Your task to perform on an android device: turn on location history Image 0: 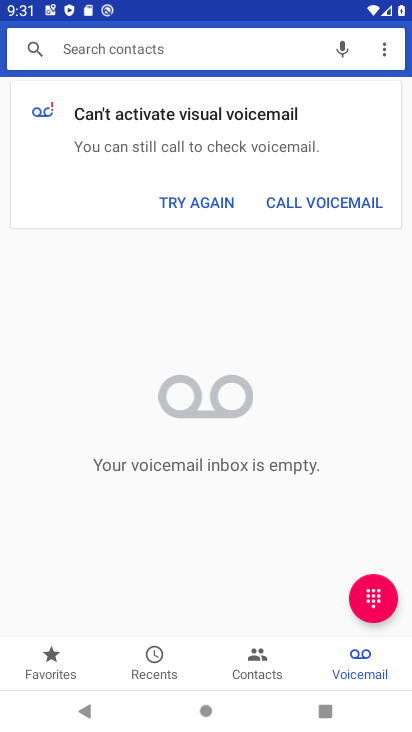
Step 0: press home button
Your task to perform on an android device: turn on location history Image 1: 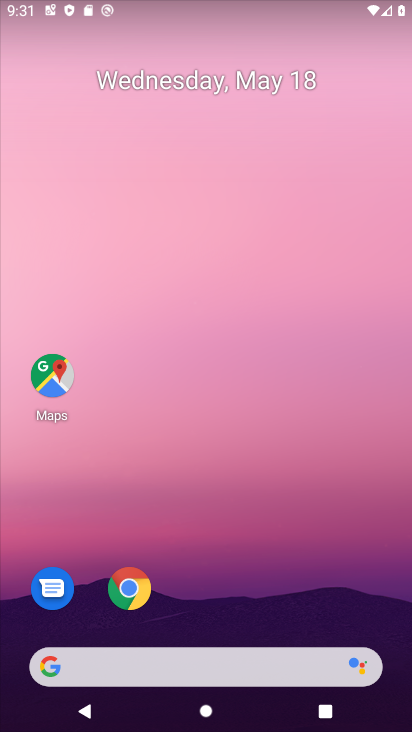
Step 1: drag from (287, 682) to (296, 160)
Your task to perform on an android device: turn on location history Image 2: 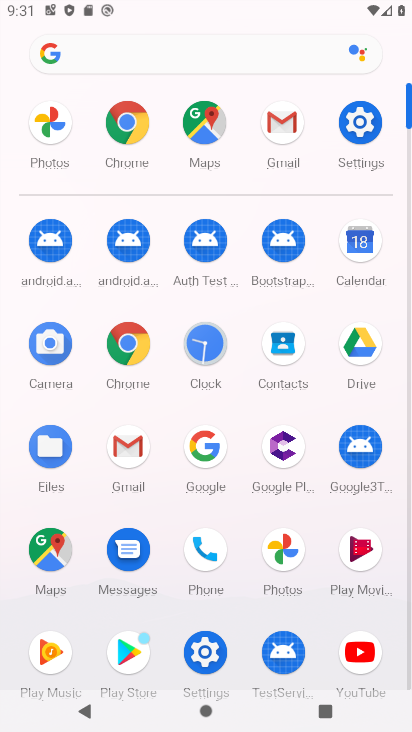
Step 2: click (371, 130)
Your task to perform on an android device: turn on location history Image 3: 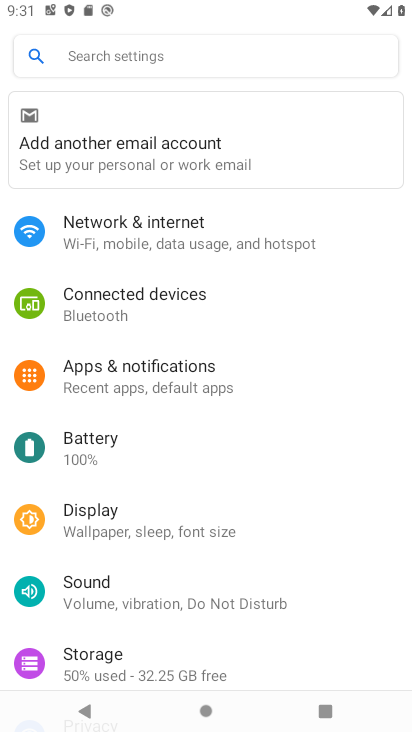
Step 3: click (192, 50)
Your task to perform on an android device: turn on location history Image 4: 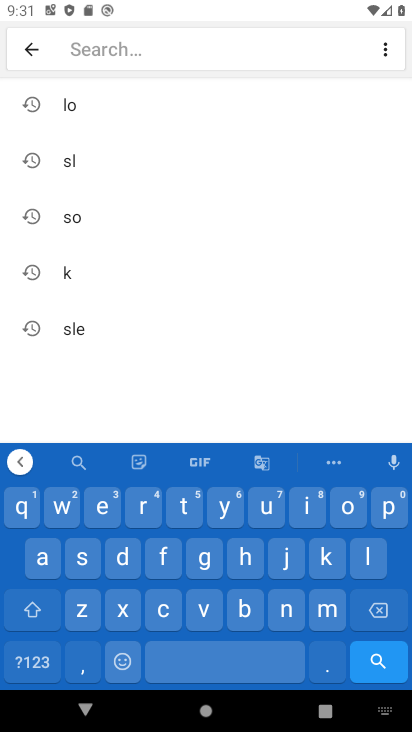
Step 4: click (88, 122)
Your task to perform on an android device: turn on location history Image 5: 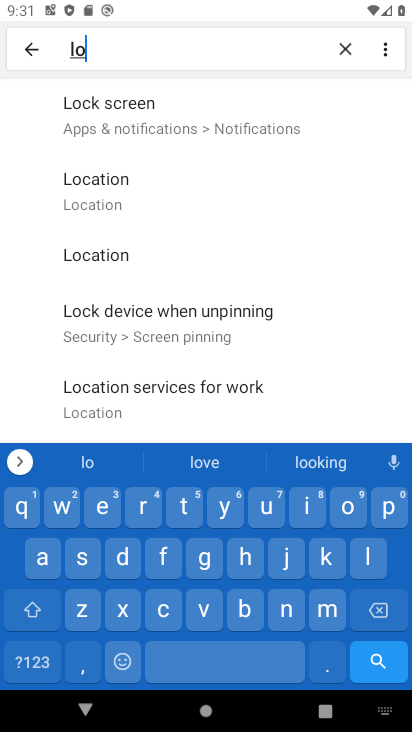
Step 5: click (111, 204)
Your task to perform on an android device: turn on location history Image 6: 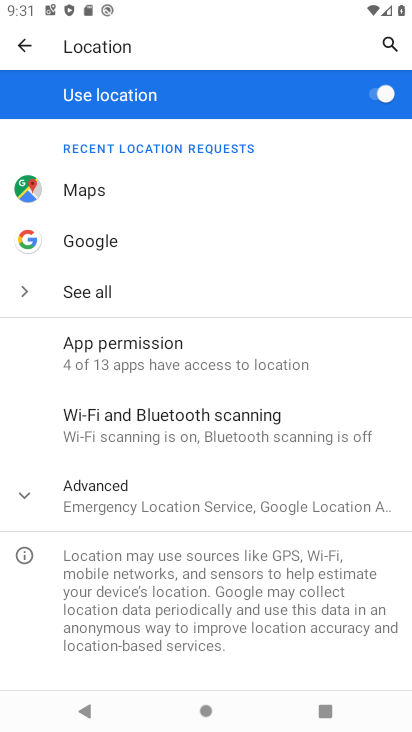
Step 6: click (43, 486)
Your task to perform on an android device: turn on location history Image 7: 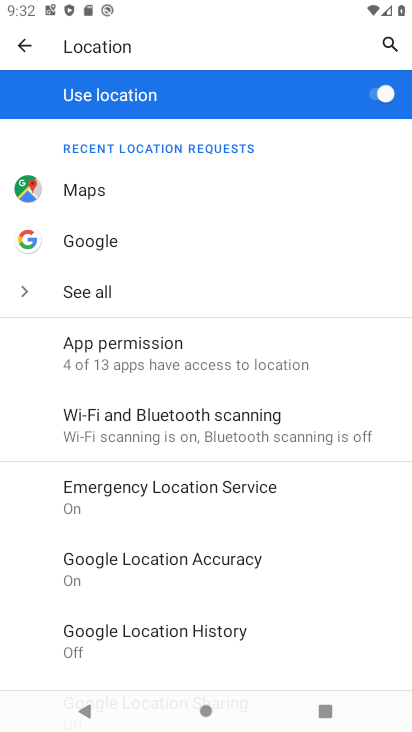
Step 7: click (172, 629)
Your task to perform on an android device: turn on location history Image 8: 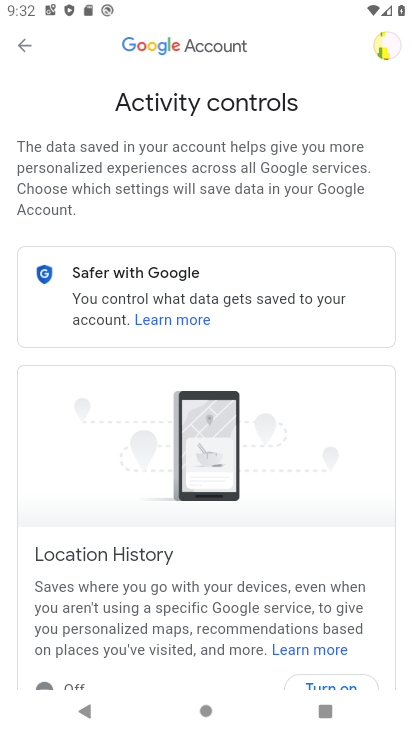
Step 8: task complete